Your task to perform on an android device: show emergency info Image 0: 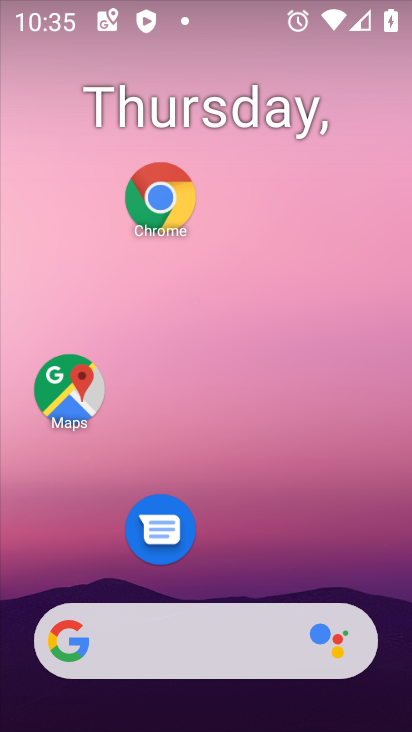
Step 0: drag from (264, 528) to (233, 98)
Your task to perform on an android device: show emergency info Image 1: 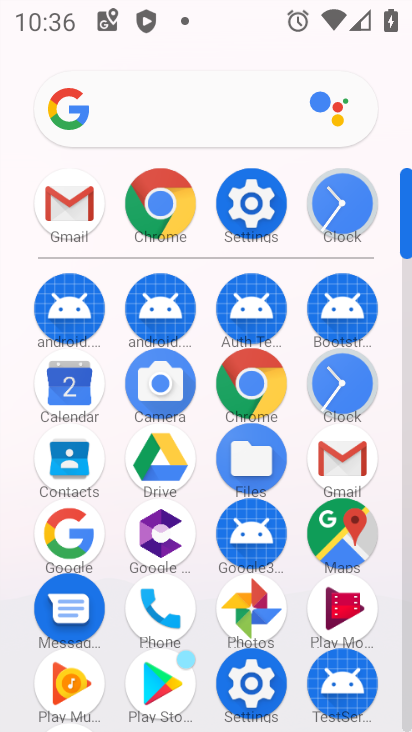
Step 1: click (252, 199)
Your task to perform on an android device: show emergency info Image 2: 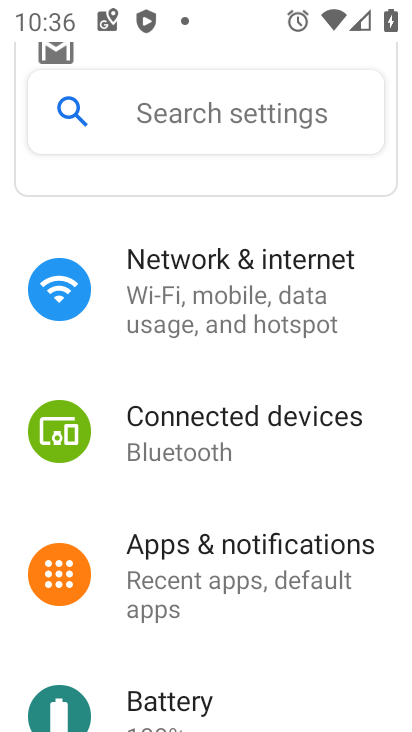
Step 2: drag from (226, 602) to (213, 213)
Your task to perform on an android device: show emergency info Image 3: 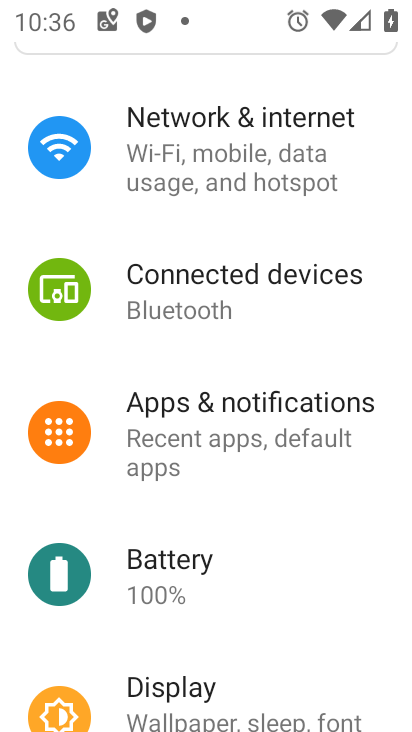
Step 3: drag from (225, 613) to (210, 190)
Your task to perform on an android device: show emergency info Image 4: 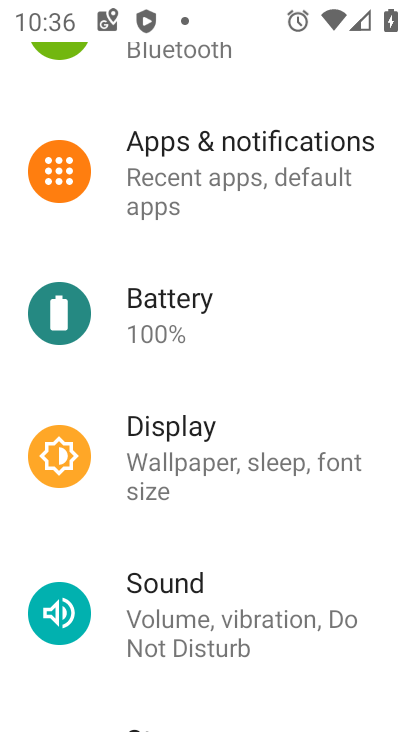
Step 4: drag from (231, 521) to (220, 115)
Your task to perform on an android device: show emergency info Image 5: 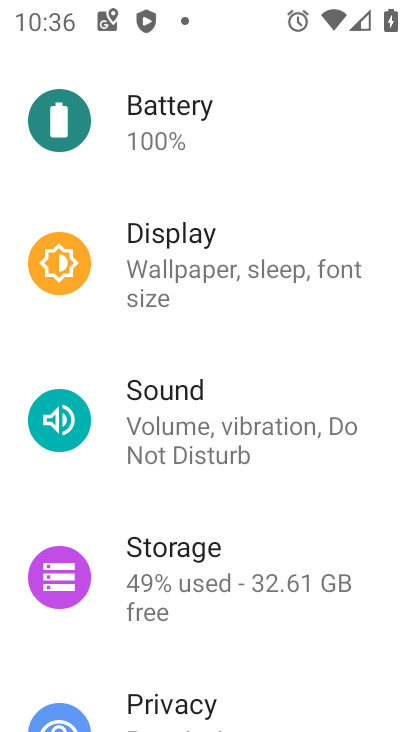
Step 5: drag from (253, 672) to (247, 235)
Your task to perform on an android device: show emergency info Image 6: 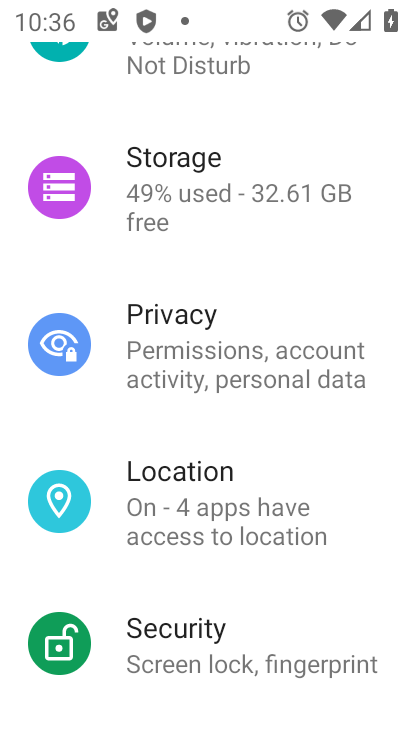
Step 6: drag from (258, 557) to (228, 120)
Your task to perform on an android device: show emergency info Image 7: 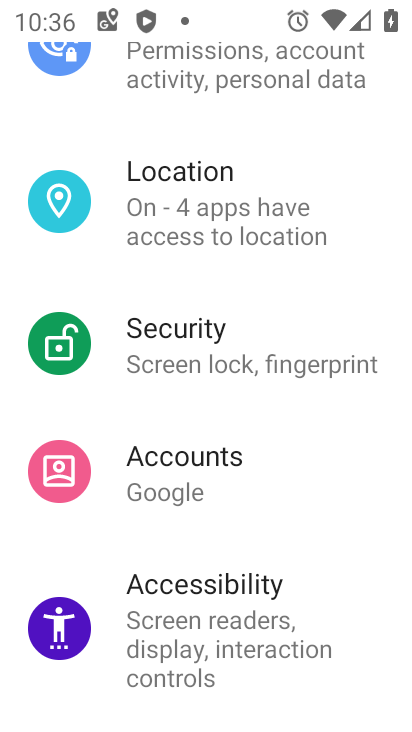
Step 7: drag from (264, 494) to (233, 59)
Your task to perform on an android device: show emergency info Image 8: 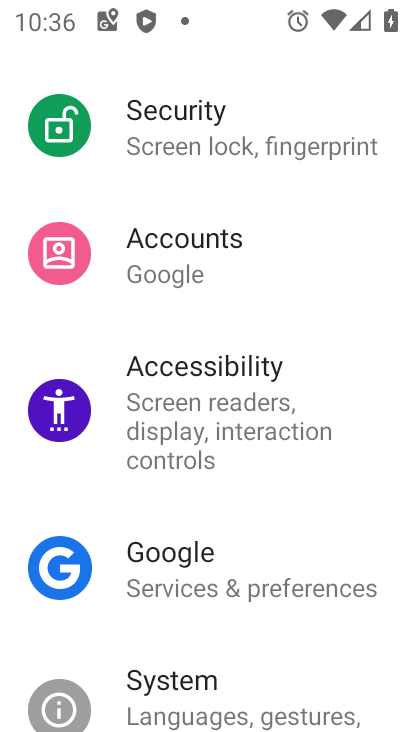
Step 8: drag from (200, 631) to (173, 159)
Your task to perform on an android device: show emergency info Image 9: 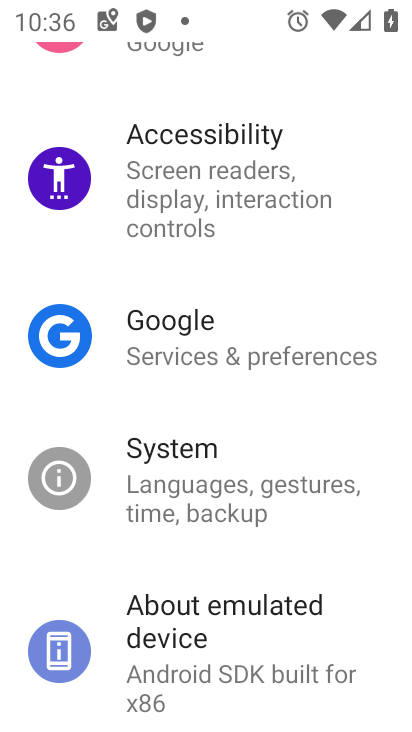
Step 9: click (182, 621)
Your task to perform on an android device: show emergency info Image 10: 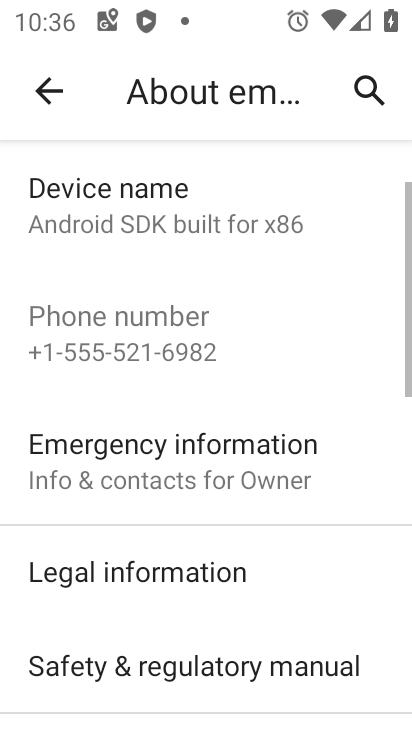
Step 10: click (156, 443)
Your task to perform on an android device: show emergency info Image 11: 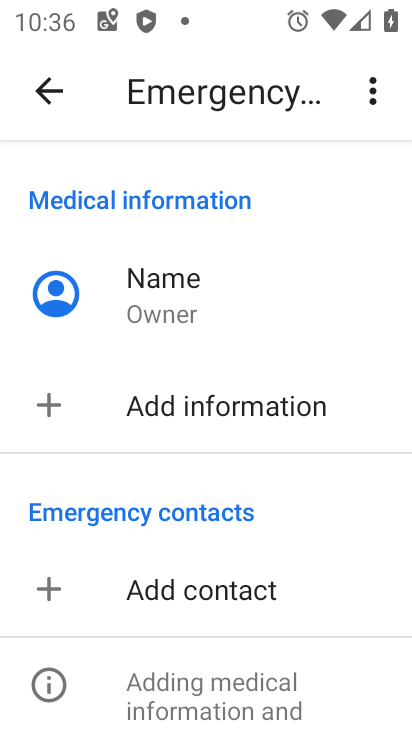
Step 11: task complete